Your task to perform on an android device: Clear the cart on ebay.com. Image 0: 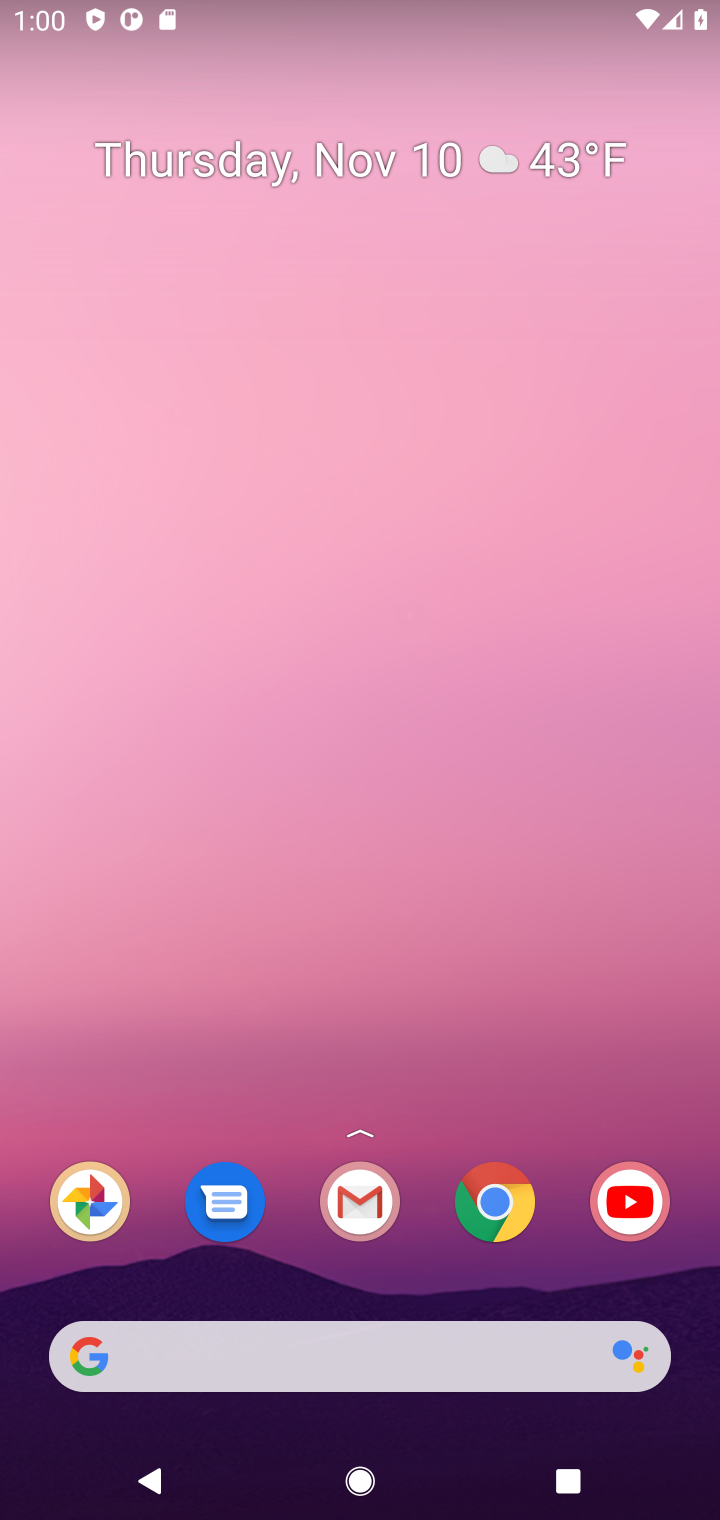
Step 0: click (506, 1195)
Your task to perform on an android device: Clear the cart on ebay.com. Image 1: 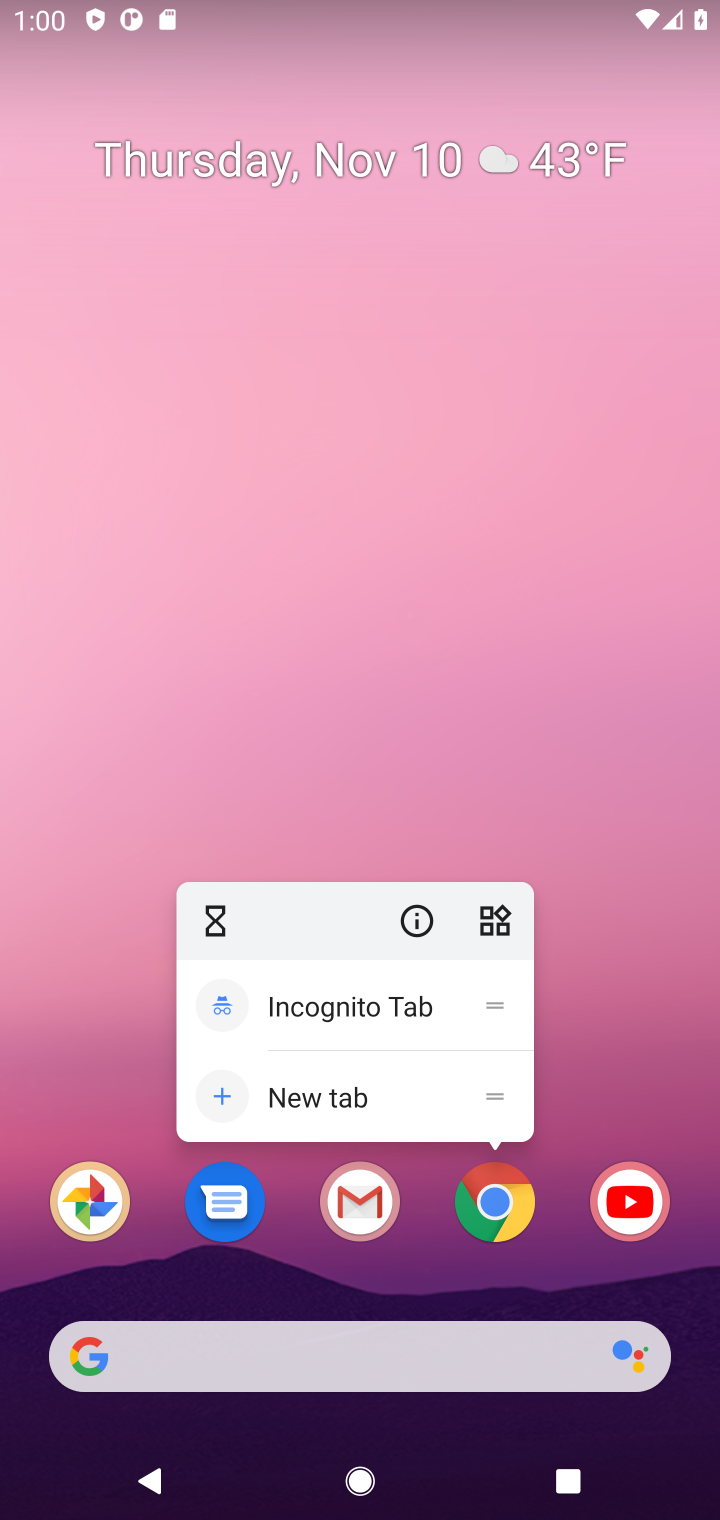
Step 1: click (506, 1195)
Your task to perform on an android device: Clear the cart on ebay.com. Image 2: 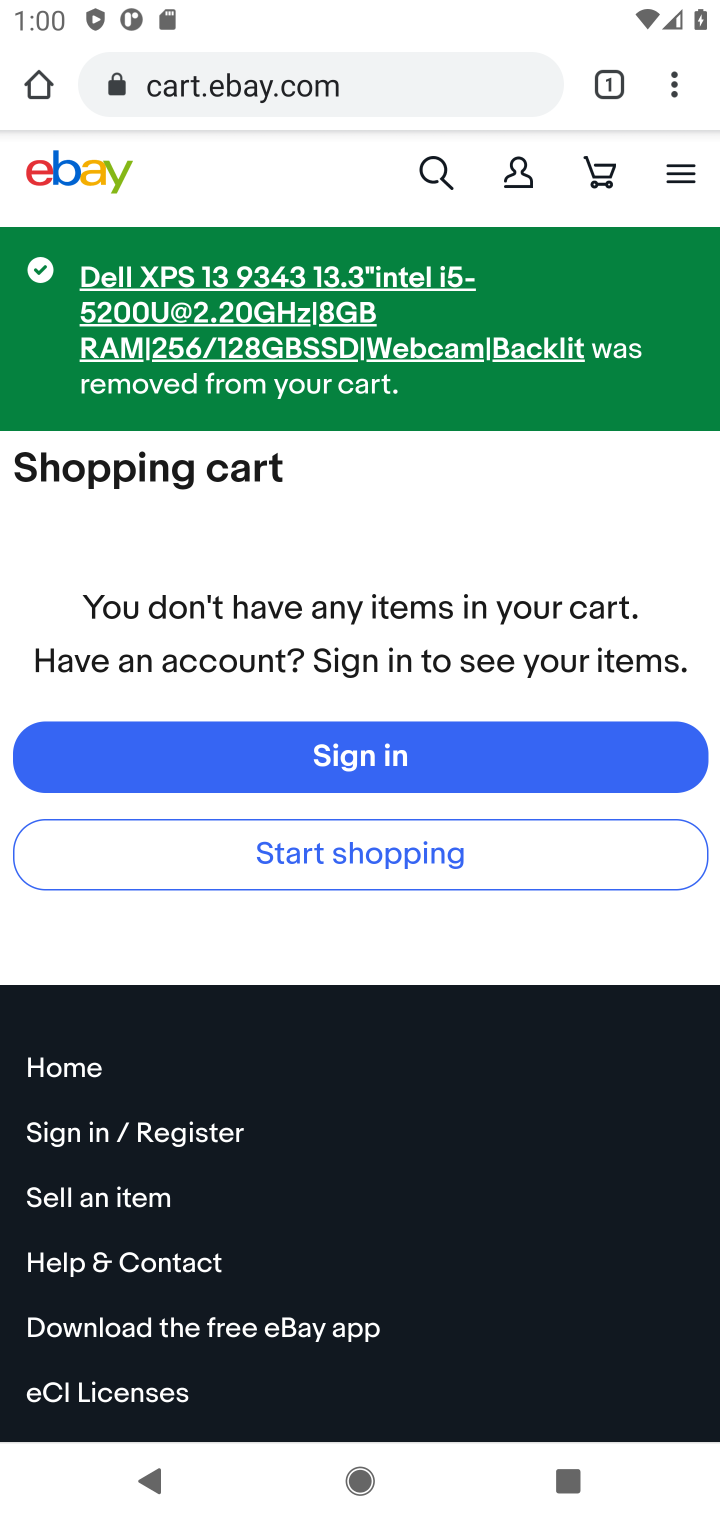
Step 2: task complete